Your task to perform on an android device: Go to Amazon Image 0: 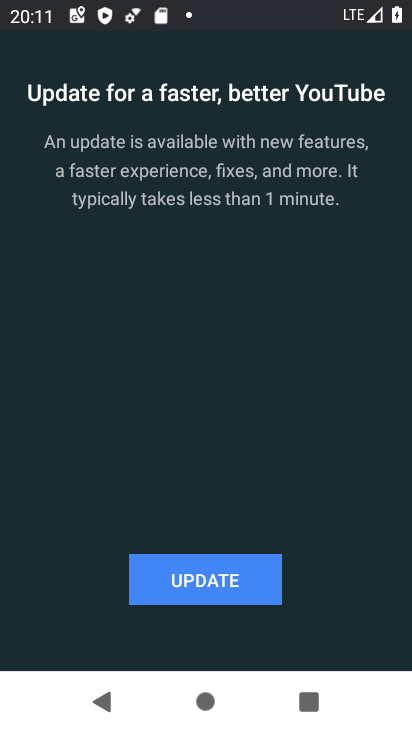
Step 0: press home button
Your task to perform on an android device: Go to Amazon Image 1: 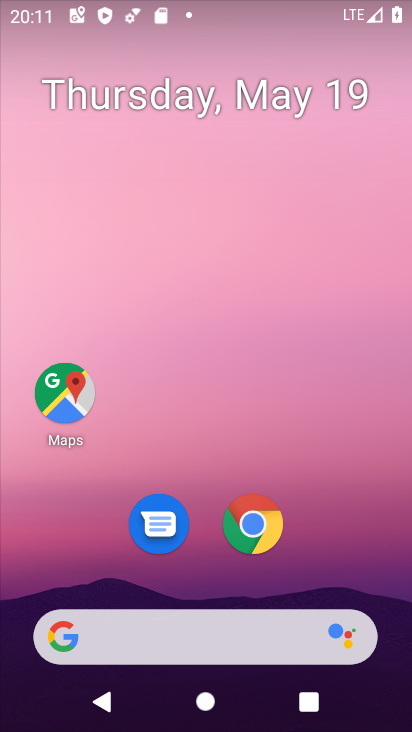
Step 1: click (267, 525)
Your task to perform on an android device: Go to Amazon Image 2: 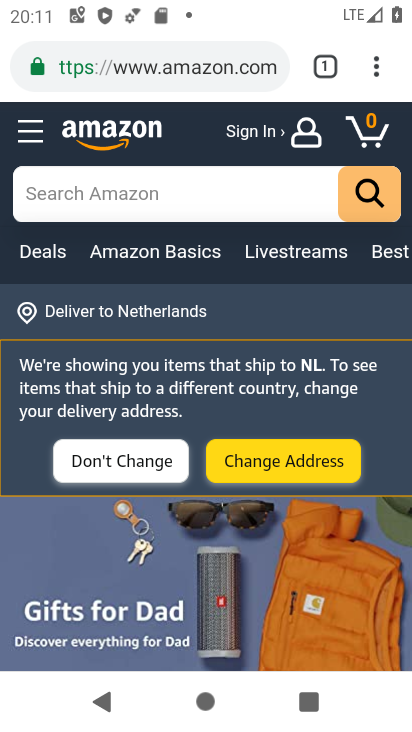
Step 2: task complete